Your task to perform on an android device: Open Wikipedia Image 0: 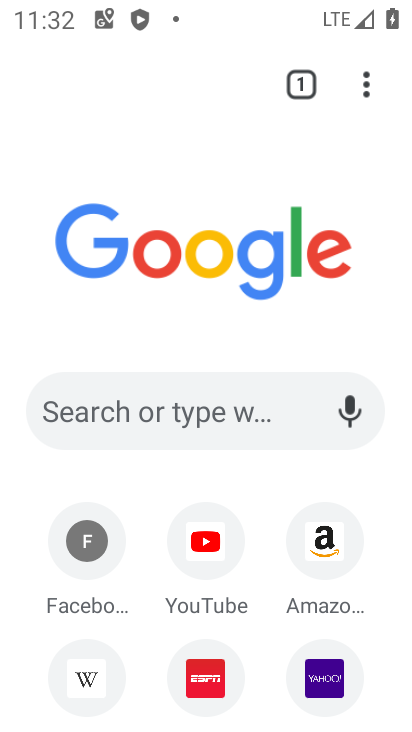
Step 0: click (69, 658)
Your task to perform on an android device: Open Wikipedia Image 1: 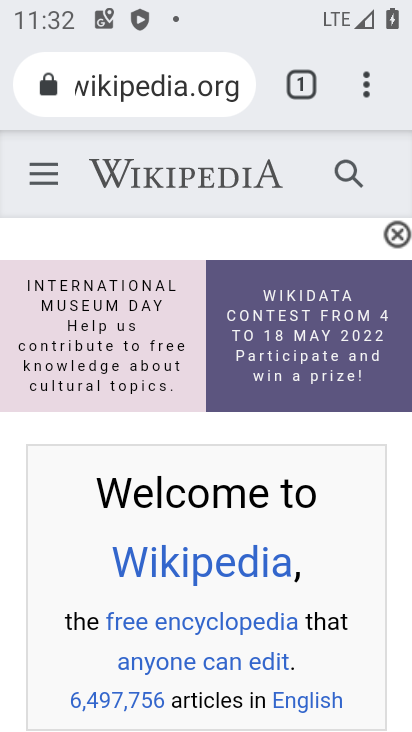
Step 1: task complete